Your task to perform on an android device: open chrome privacy settings Image 0: 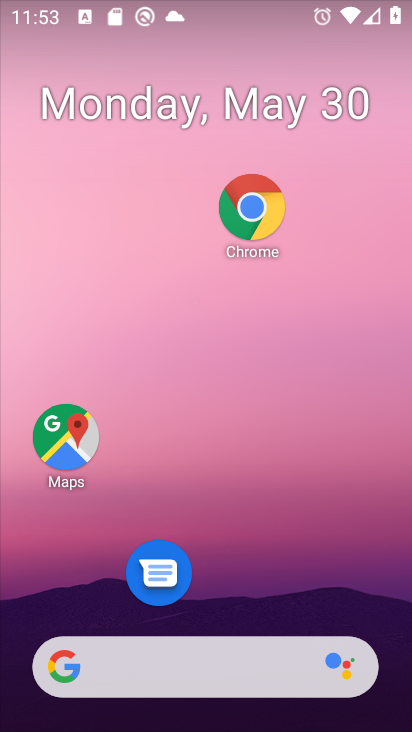
Step 0: drag from (242, 561) to (245, 85)
Your task to perform on an android device: open chrome privacy settings Image 1: 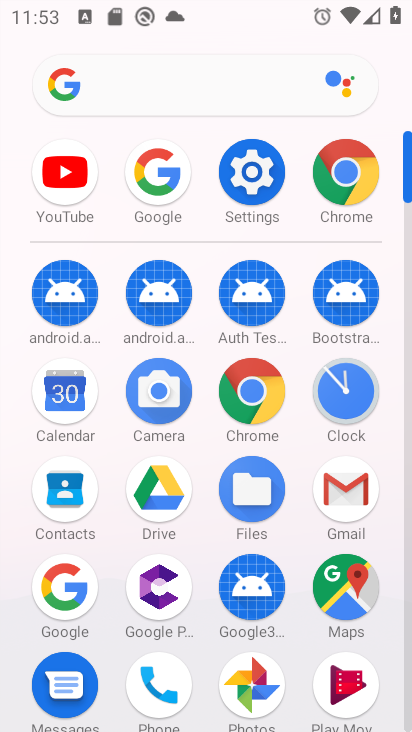
Step 1: click (349, 199)
Your task to perform on an android device: open chrome privacy settings Image 2: 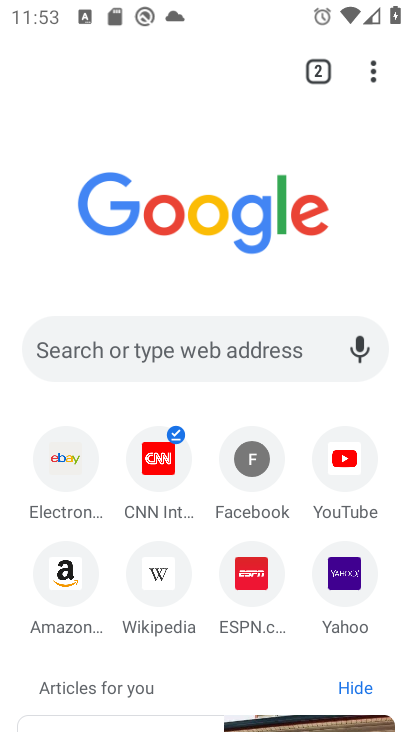
Step 2: click (374, 73)
Your task to perform on an android device: open chrome privacy settings Image 3: 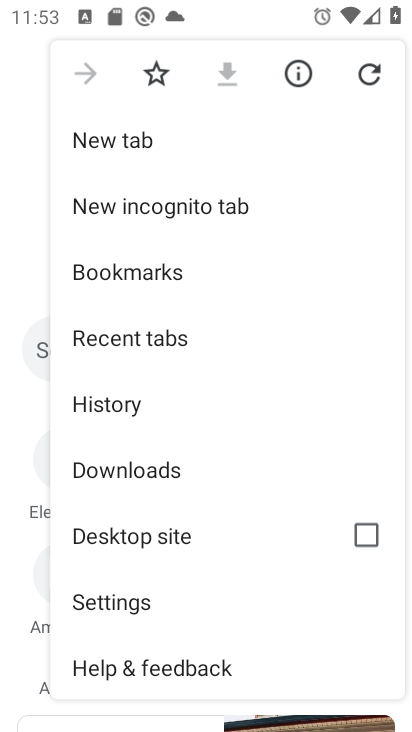
Step 3: click (146, 599)
Your task to perform on an android device: open chrome privacy settings Image 4: 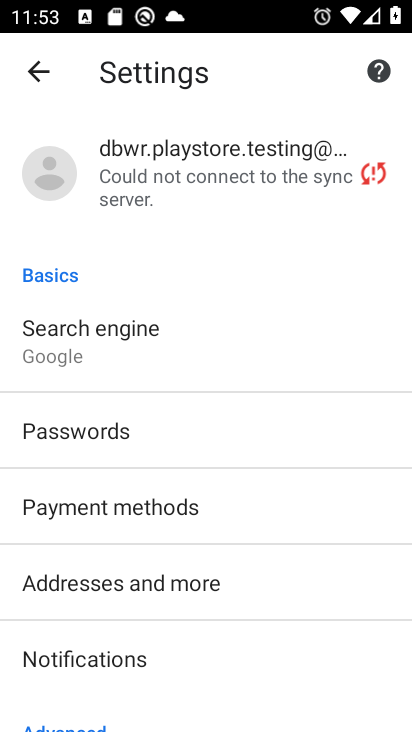
Step 4: drag from (214, 546) to (247, 182)
Your task to perform on an android device: open chrome privacy settings Image 5: 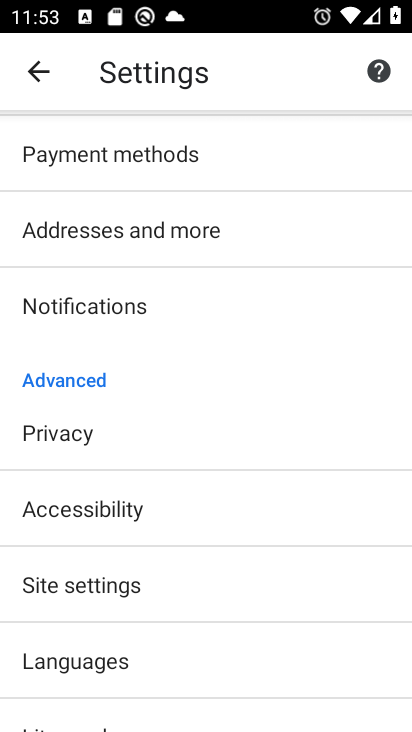
Step 5: drag from (146, 584) to (146, 284)
Your task to perform on an android device: open chrome privacy settings Image 6: 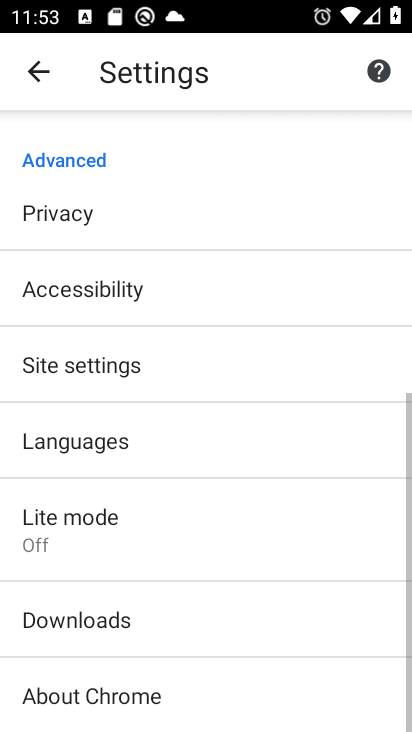
Step 6: click (76, 215)
Your task to perform on an android device: open chrome privacy settings Image 7: 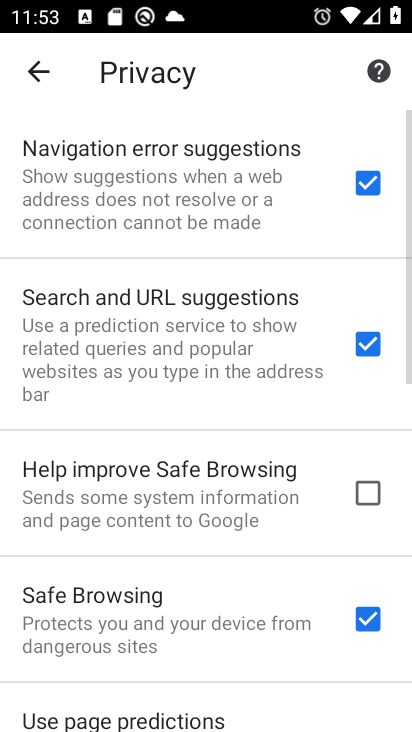
Step 7: task complete